Your task to perform on an android device: Go to Google Image 0: 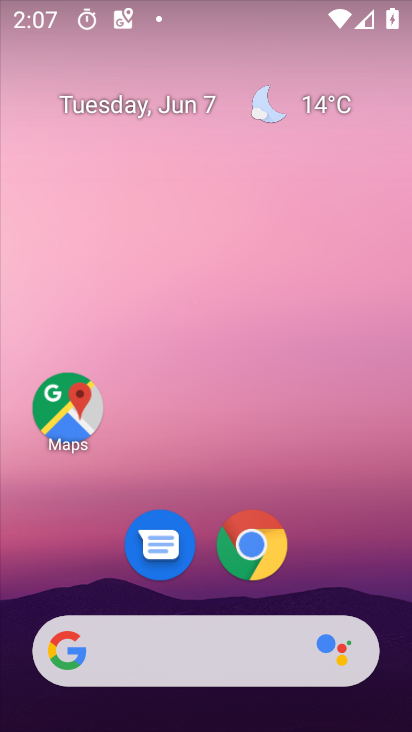
Step 0: drag from (309, 310) to (186, 39)
Your task to perform on an android device: Go to Google Image 1: 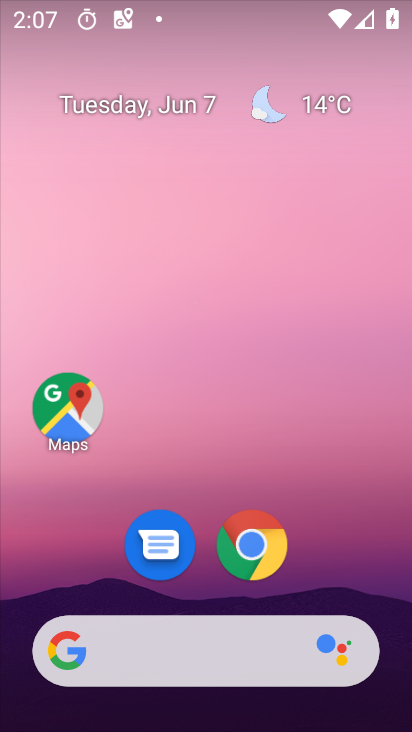
Step 1: drag from (349, 567) to (153, 6)
Your task to perform on an android device: Go to Google Image 2: 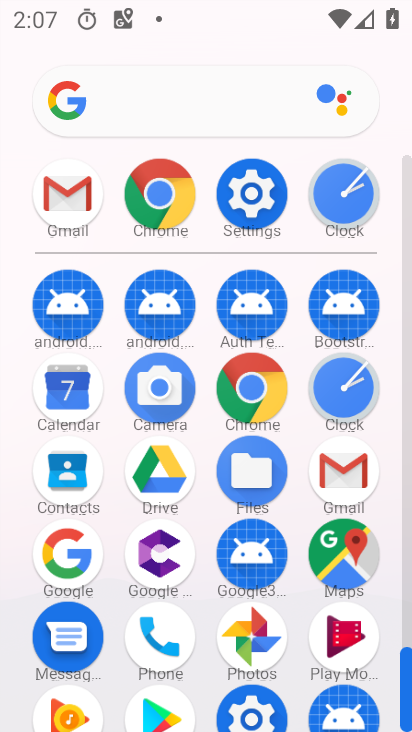
Step 2: click (58, 555)
Your task to perform on an android device: Go to Google Image 3: 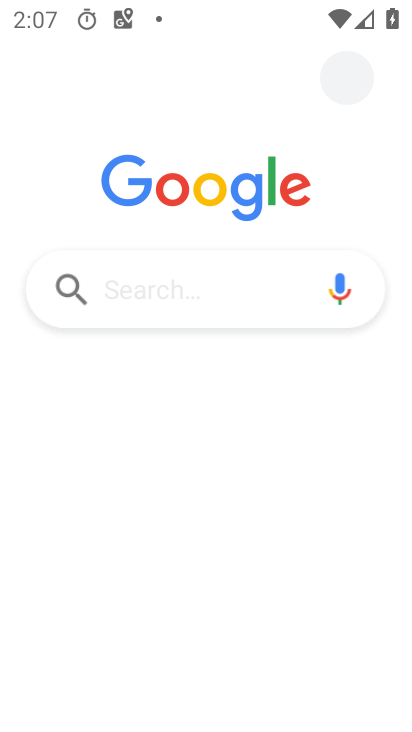
Step 3: task complete